Your task to perform on an android device: toggle translation in the chrome app Image 0: 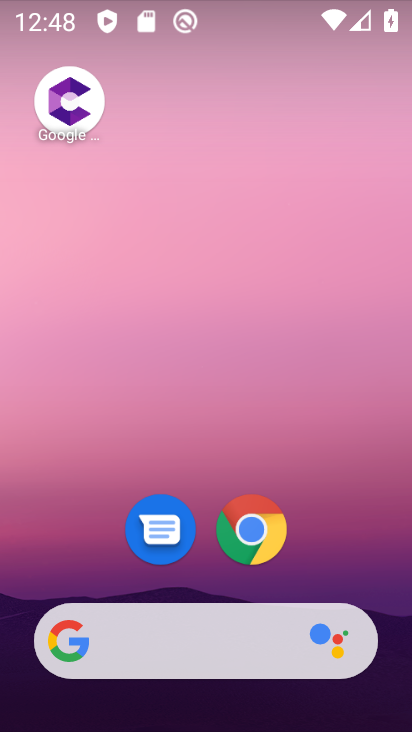
Step 0: drag from (380, 520) to (227, 111)
Your task to perform on an android device: toggle translation in the chrome app Image 1: 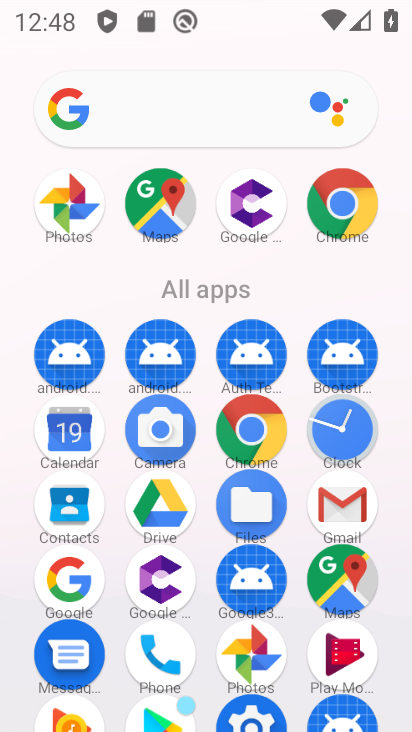
Step 1: click (345, 219)
Your task to perform on an android device: toggle translation in the chrome app Image 2: 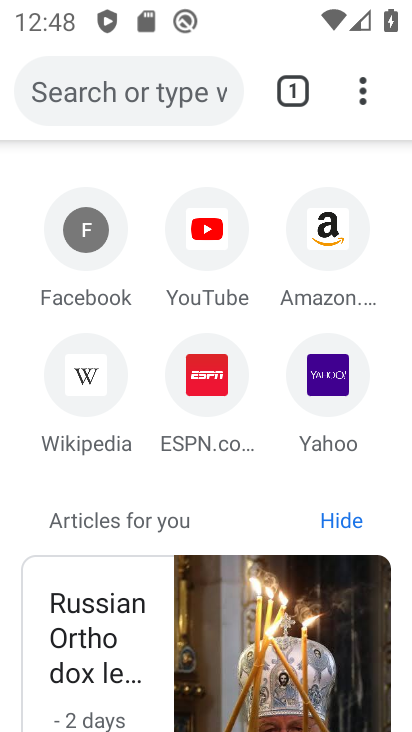
Step 2: click (367, 99)
Your task to perform on an android device: toggle translation in the chrome app Image 3: 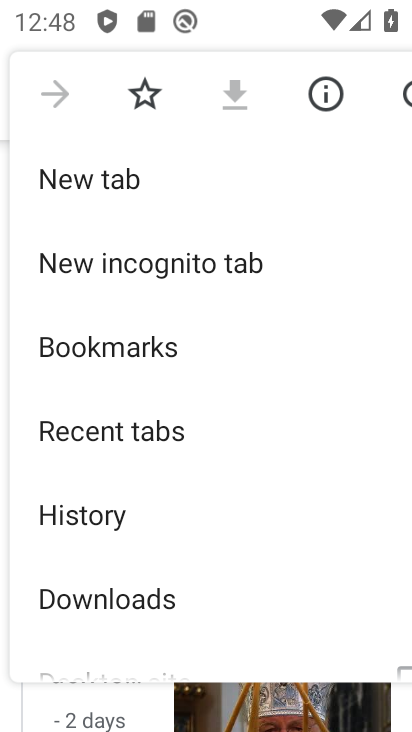
Step 3: drag from (285, 359) to (243, 167)
Your task to perform on an android device: toggle translation in the chrome app Image 4: 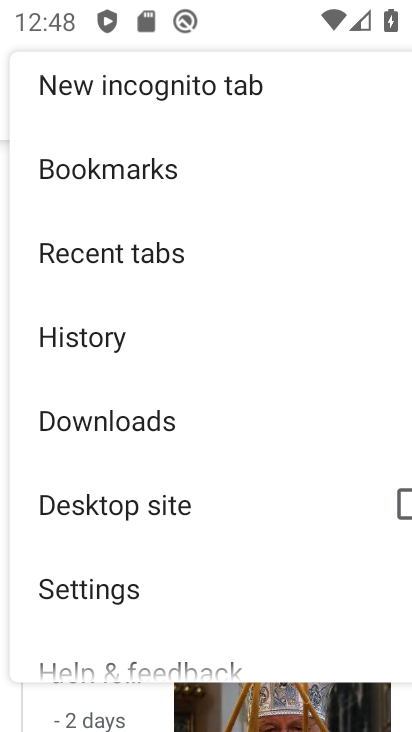
Step 4: click (269, 606)
Your task to perform on an android device: toggle translation in the chrome app Image 5: 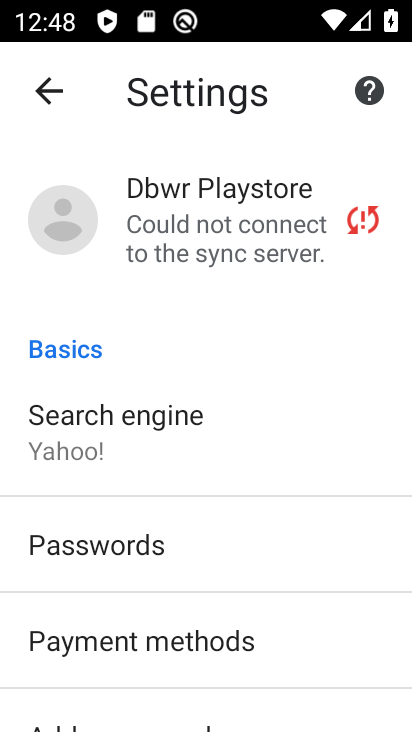
Step 5: drag from (298, 663) to (221, 234)
Your task to perform on an android device: toggle translation in the chrome app Image 6: 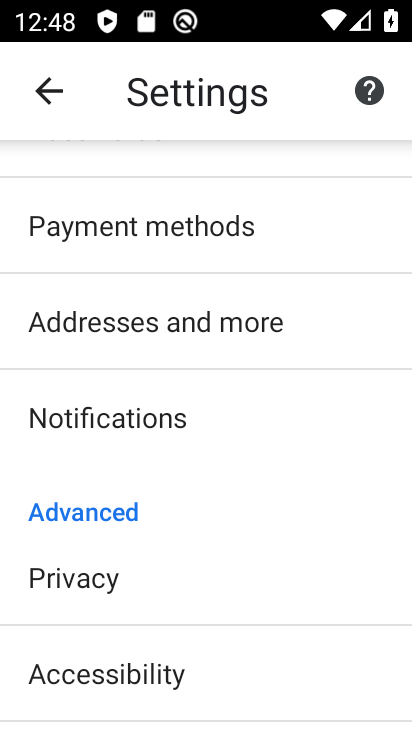
Step 6: drag from (286, 596) to (249, 242)
Your task to perform on an android device: toggle translation in the chrome app Image 7: 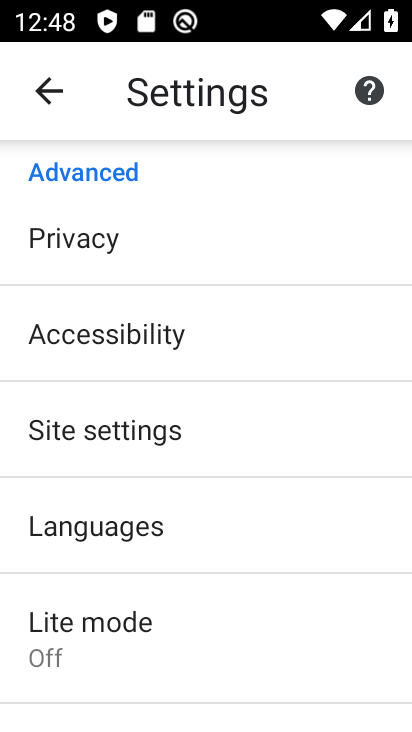
Step 7: click (243, 549)
Your task to perform on an android device: toggle translation in the chrome app Image 8: 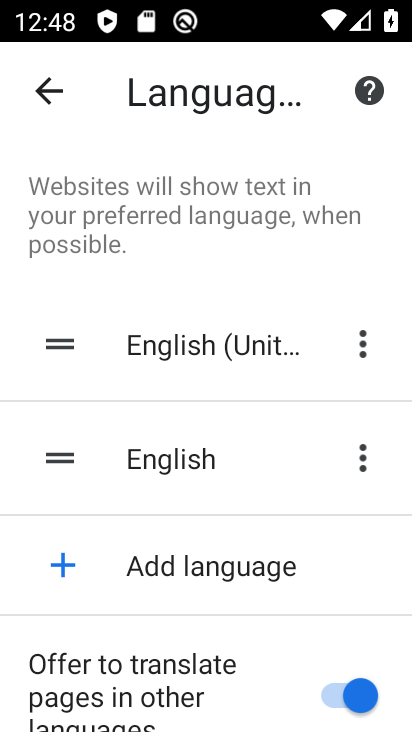
Step 8: click (338, 688)
Your task to perform on an android device: toggle translation in the chrome app Image 9: 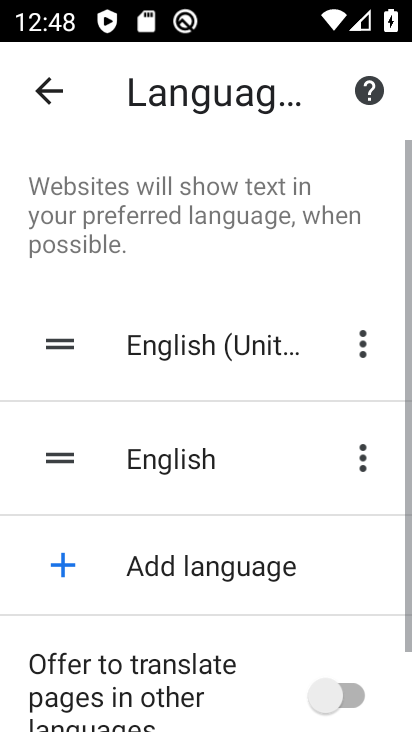
Step 9: task complete